Your task to perform on an android device: Open accessibility settings Image 0: 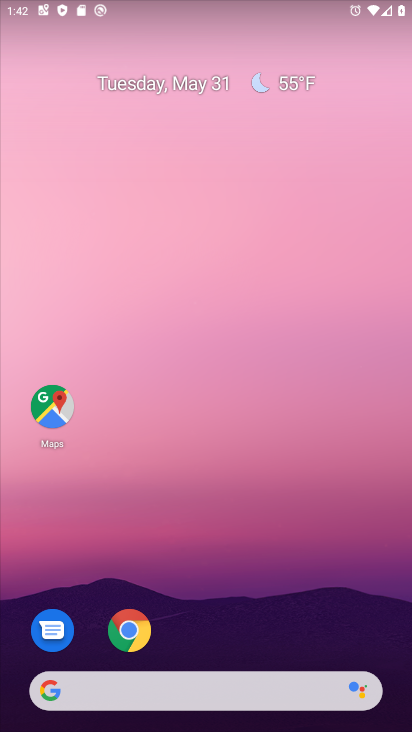
Step 0: drag from (282, 561) to (333, 201)
Your task to perform on an android device: Open accessibility settings Image 1: 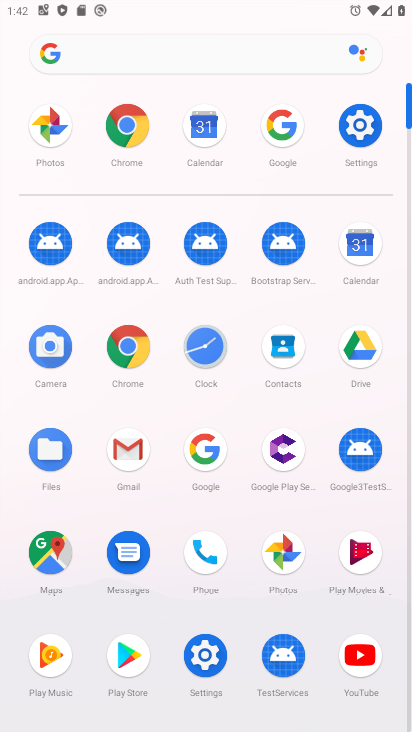
Step 1: click (364, 110)
Your task to perform on an android device: Open accessibility settings Image 2: 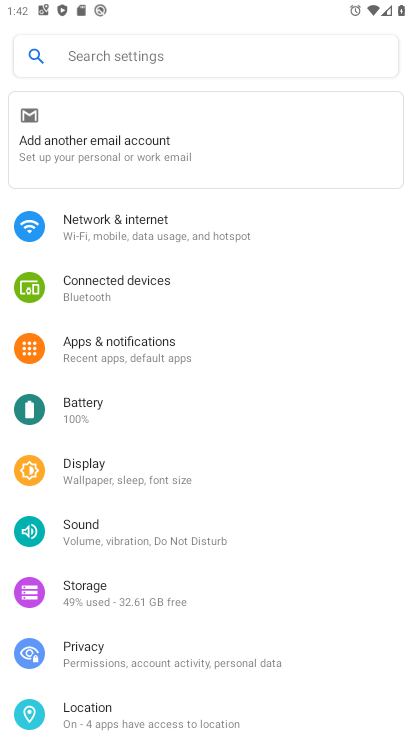
Step 2: drag from (152, 714) to (203, 330)
Your task to perform on an android device: Open accessibility settings Image 3: 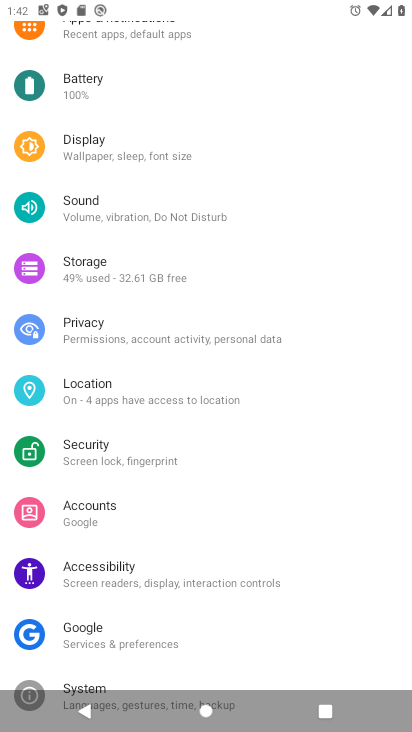
Step 3: click (136, 591)
Your task to perform on an android device: Open accessibility settings Image 4: 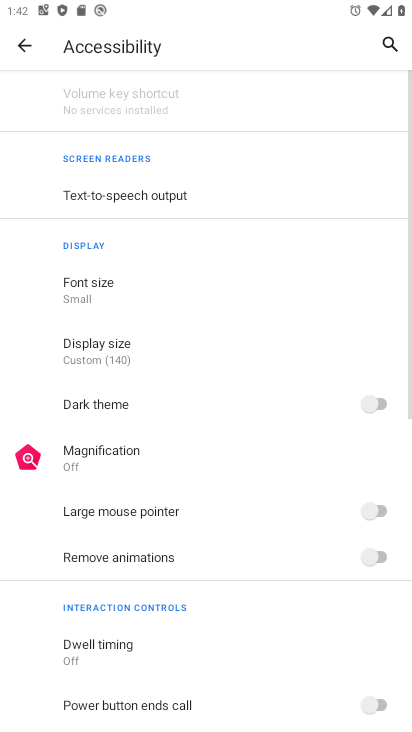
Step 4: task complete